Your task to perform on an android device: Go to Google Image 0: 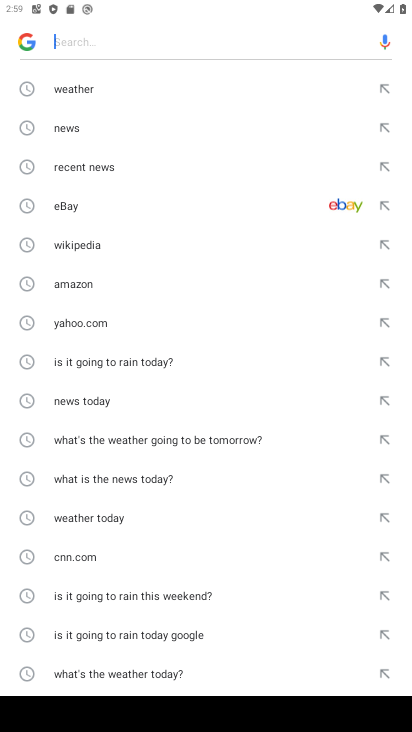
Step 0: press home button
Your task to perform on an android device: Go to Google Image 1: 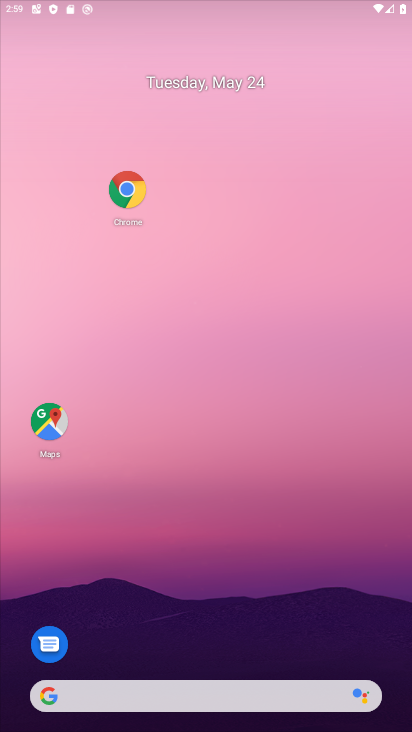
Step 1: drag from (253, 530) to (223, 0)
Your task to perform on an android device: Go to Google Image 2: 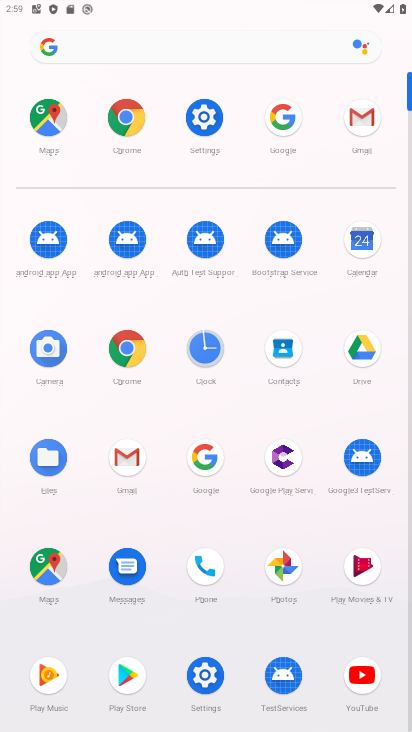
Step 2: click (202, 459)
Your task to perform on an android device: Go to Google Image 3: 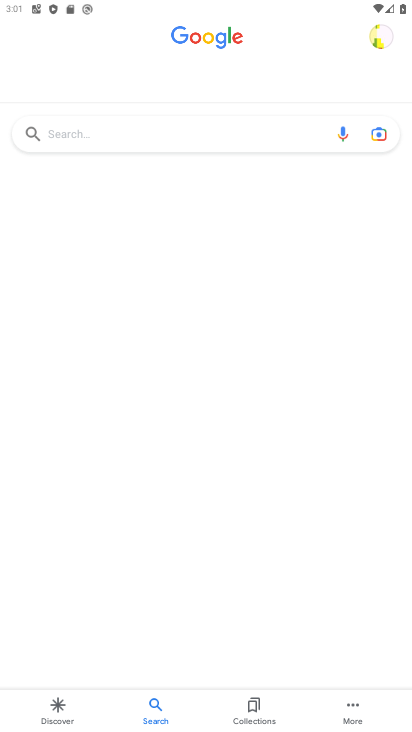
Step 3: task complete